Your task to perform on an android device: Open Google Chrome and open the bookmarks view Image 0: 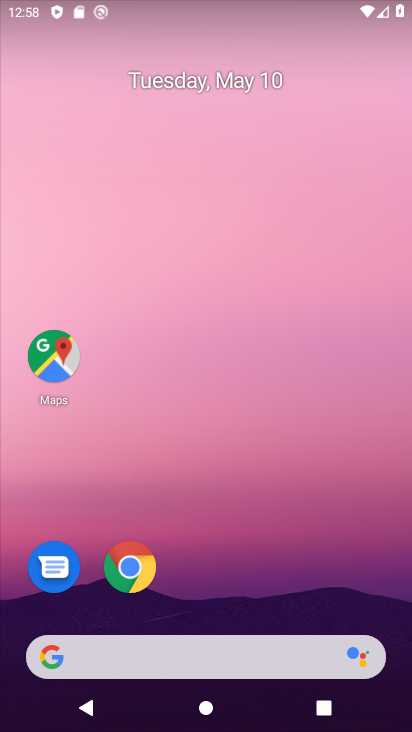
Step 0: click (147, 569)
Your task to perform on an android device: Open Google Chrome and open the bookmarks view Image 1: 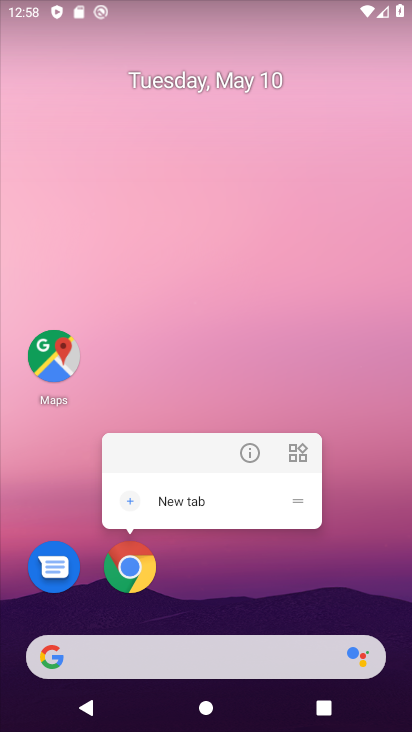
Step 1: click (135, 573)
Your task to perform on an android device: Open Google Chrome and open the bookmarks view Image 2: 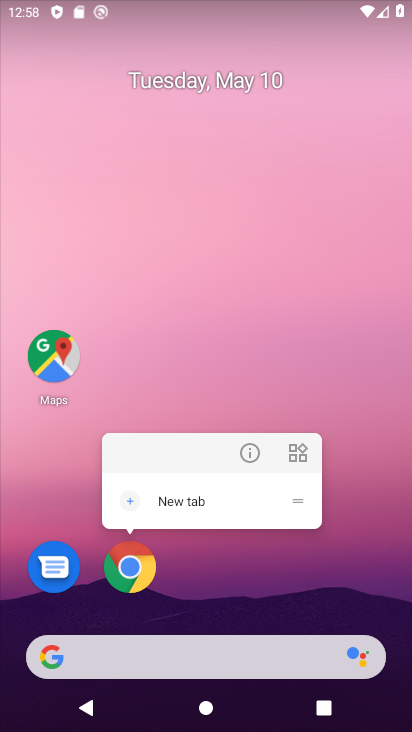
Step 2: click (133, 587)
Your task to perform on an android device: Open Google Chrome and open the bookmarks view Image 3: 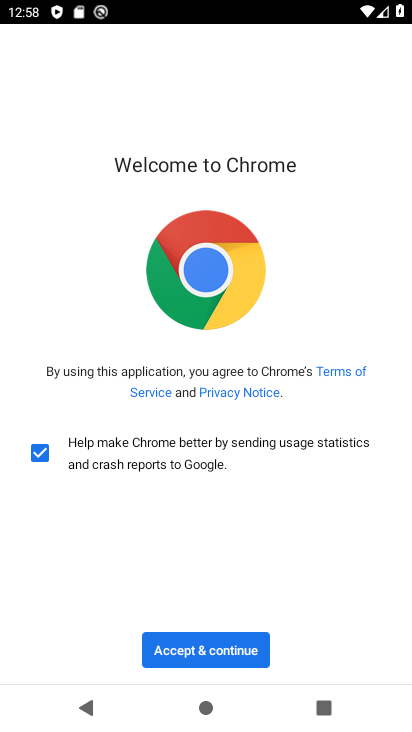
Step 3: click (197, 653)
Your task to perform on an android device: Open Google Chrome and open the bookmarks view Image 4: 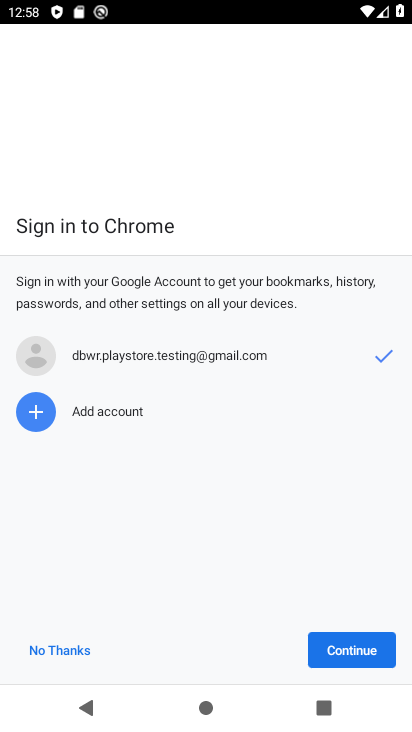
Step 4: click (350, 651)
Your task to perform on an android device: Open Google Chrome and open the bookmarks view Image 5: 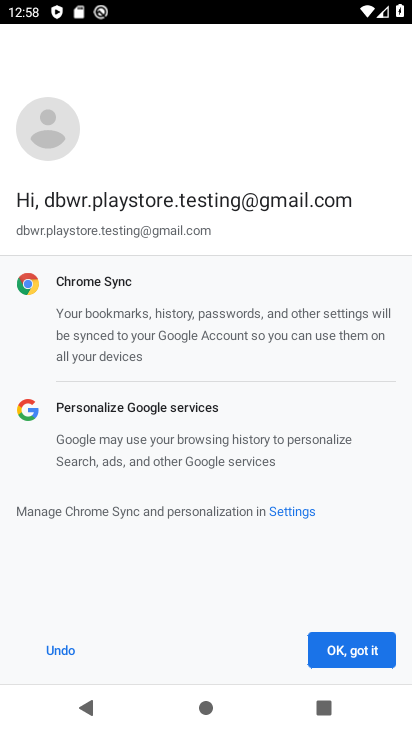
Step 5: click (339, 655)
Your task to perform on an android device: Open Google Chrome and open the bookmarks view Image 6: 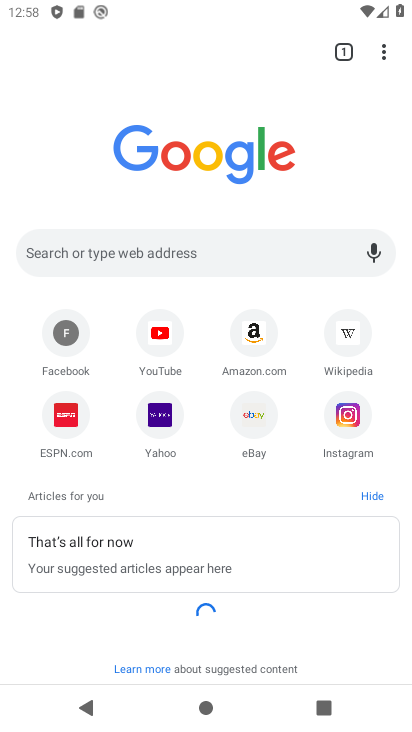
Step 6: click (377, 57)
Your task to perform on an android device: Open Google Chrome and open the bookmarks view Image 7: 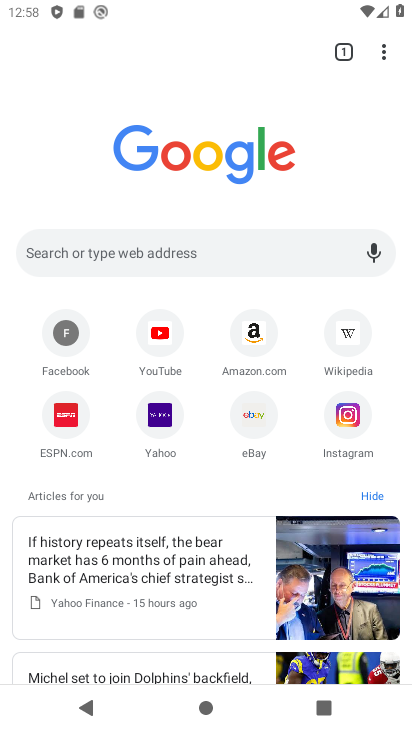
Step 7: task complete